Your task to perform on an android device: see creations saved in the google photos Image 0: 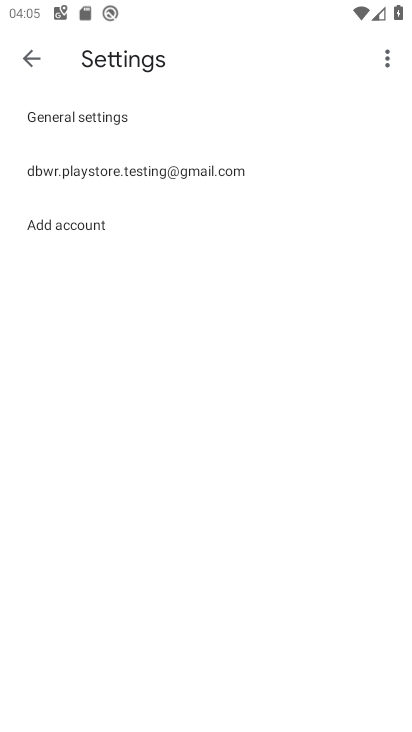
Step 0: press home button
Your task to perform on an android device: see creations saved in the google photos Image 1: 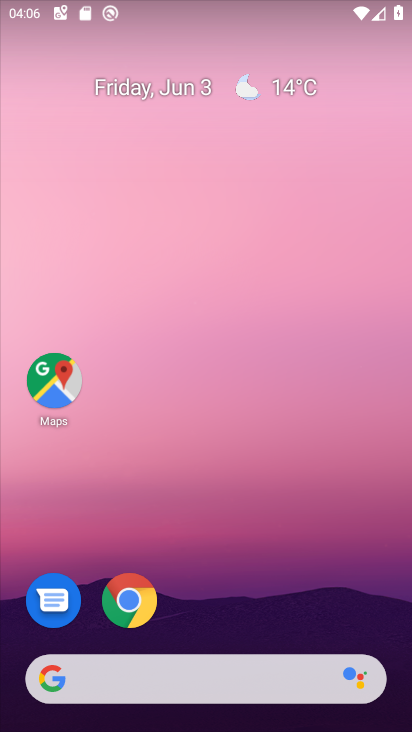
Step 1: drag from (256, 505) to (259, 120)
Your task to perform on an android device: see creations saved in the google photos Image 2: 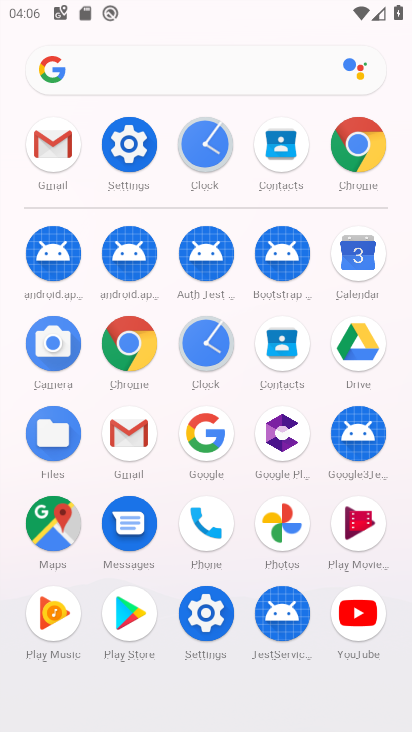
Step 2: click (276, 513)
Your task to perform on an android device: see creations saved in the google photos Image 3: 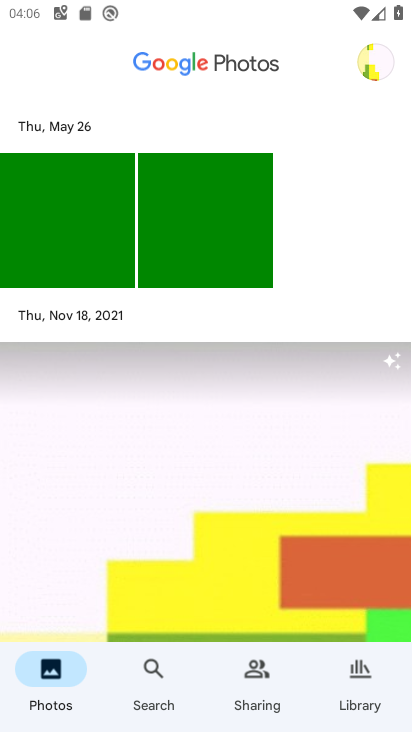
Step 3: click (343, 679)
Your task to perform on an android device: see creations saved in the google photos Image 4: 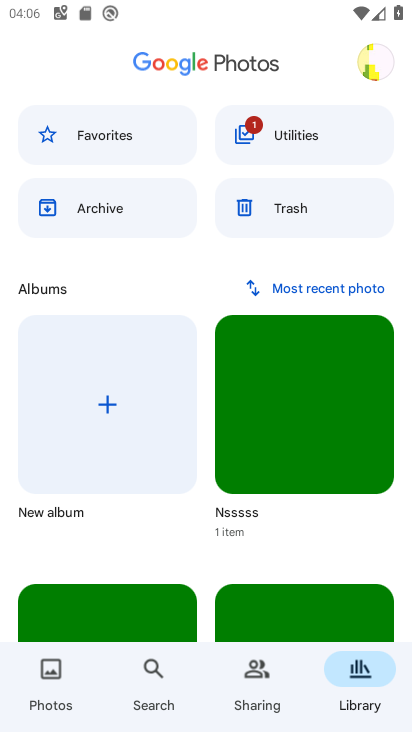
Step 4: task complete